Your task to perform on an android device: change notification settings in the gmail app Image 0: 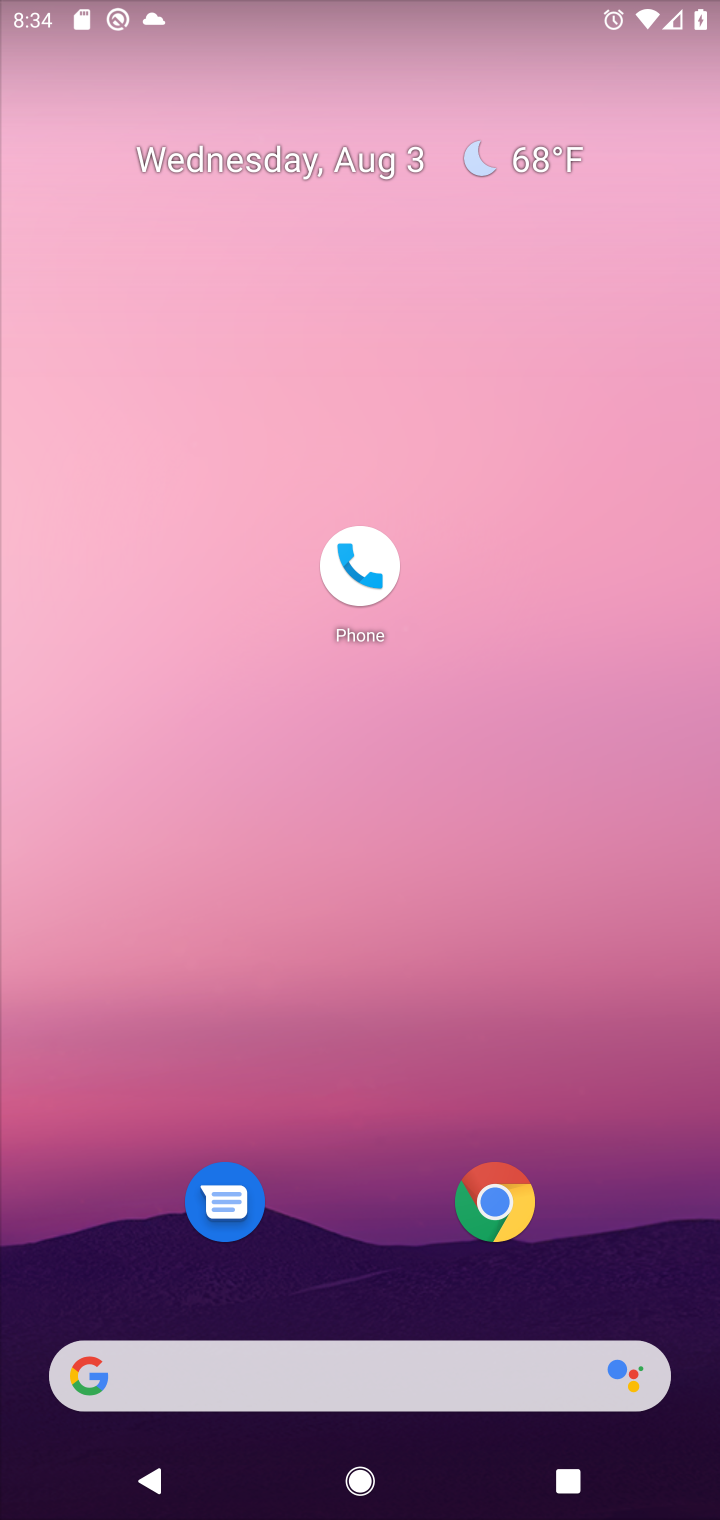
Step 0: press home button
Your task to perform on an android device: change notification settings in the gmail app Image 1: 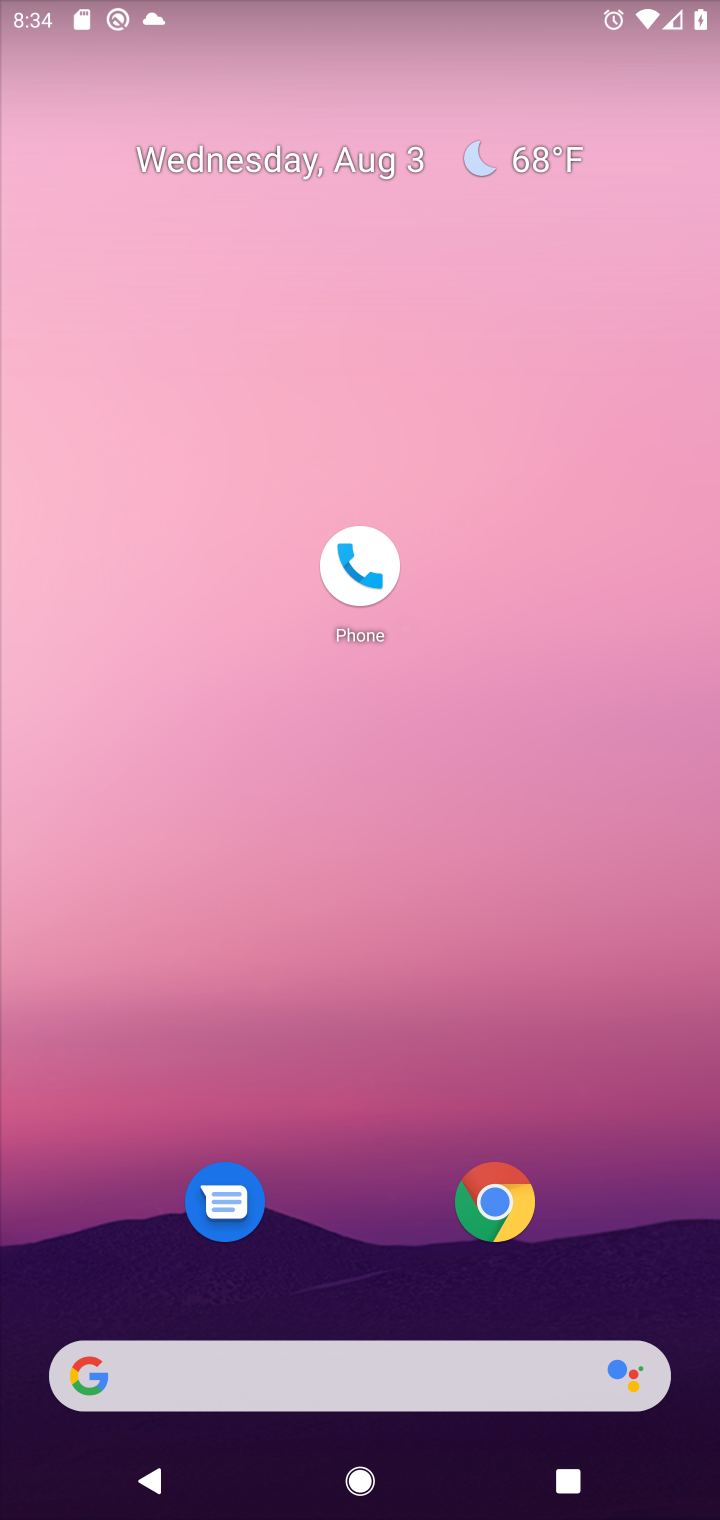
Step 1: drag from (338, 1385) to (409, 406)
Your task to perform on an android device: change notification settings in the gmail app Image 2: 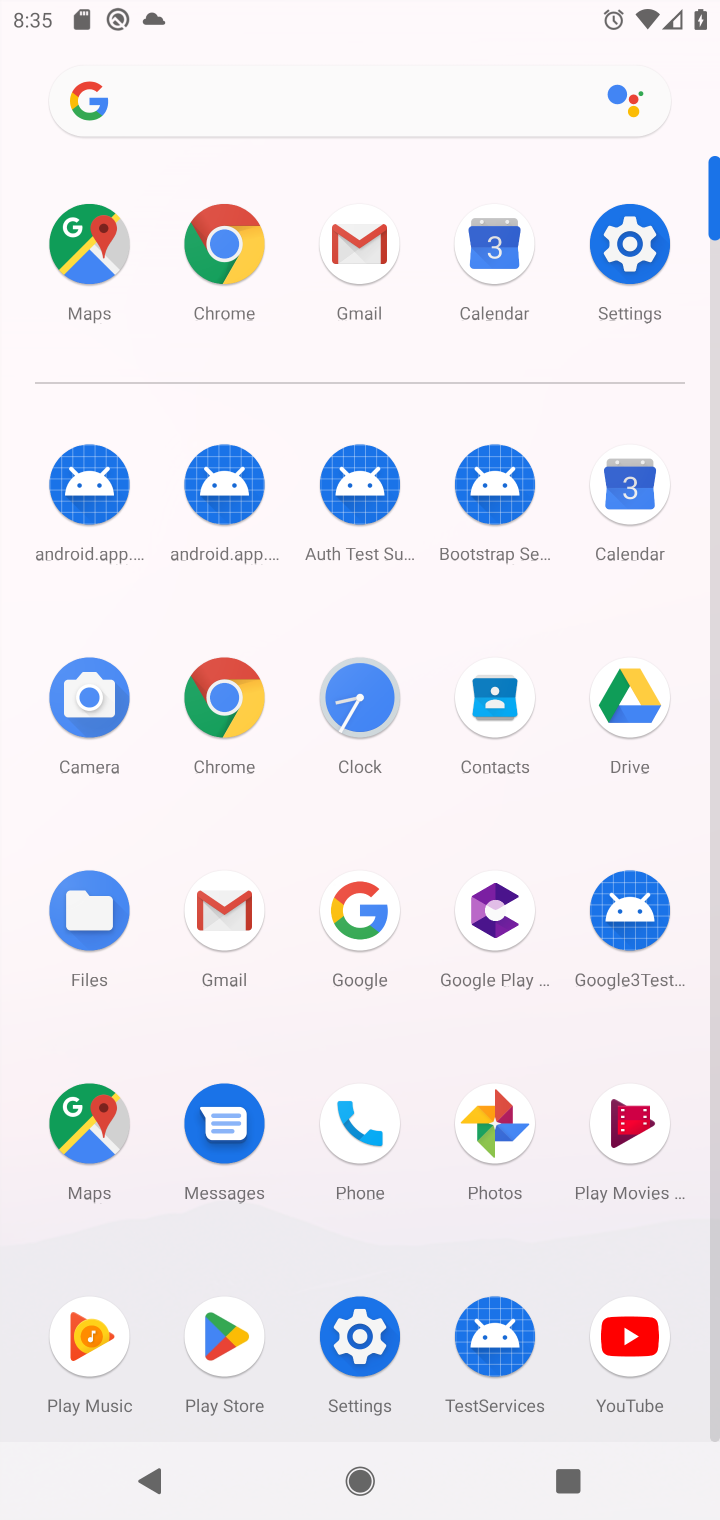
Step 2: click (353, 246)
Your task to perform on an android device: change notification settings in the gmail app Image 3: 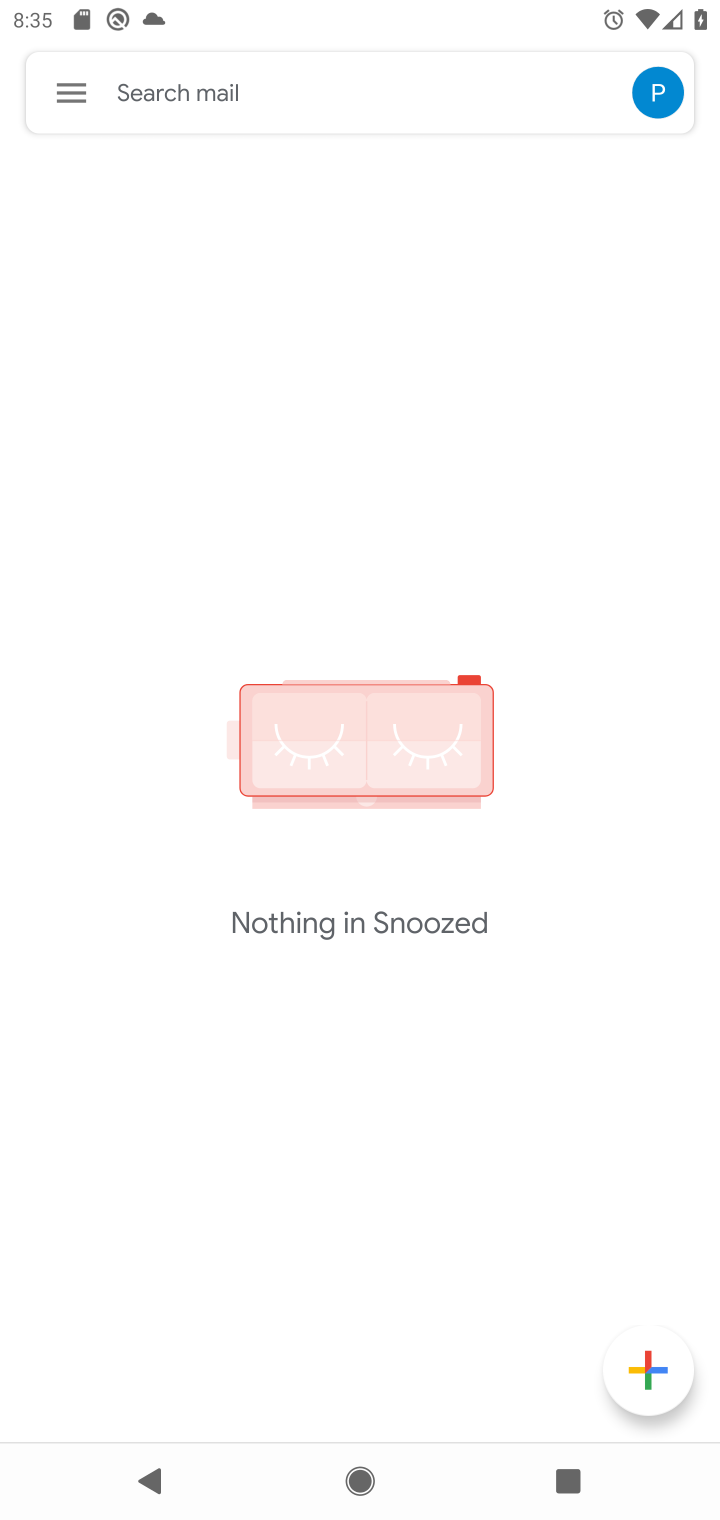
Step 3: click (67, 97)
Your task to perform on an android device: change notification settings in the gmail app Image 4: 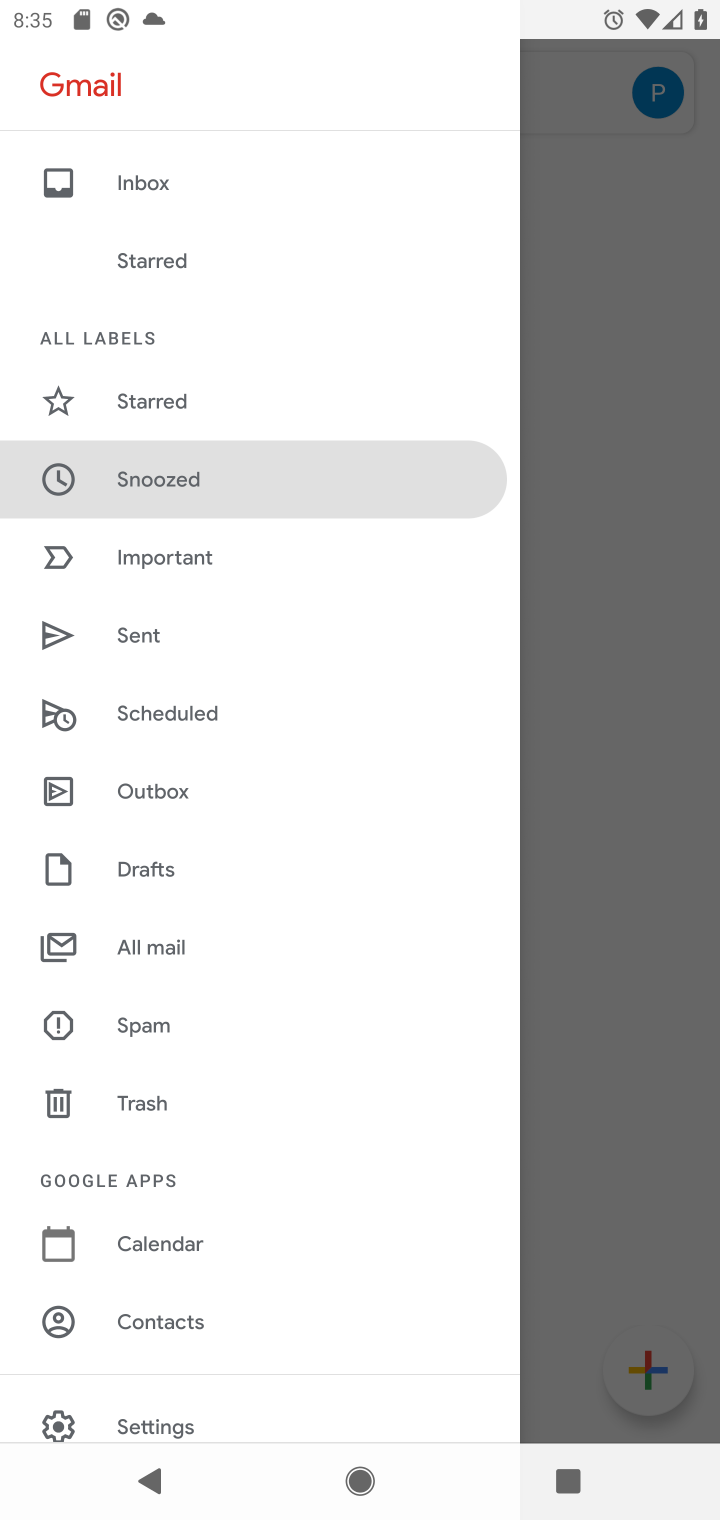
Step 4: click (161, 1418)
Your task to perform on an android device: change notification settings in the gmail app Image 5: 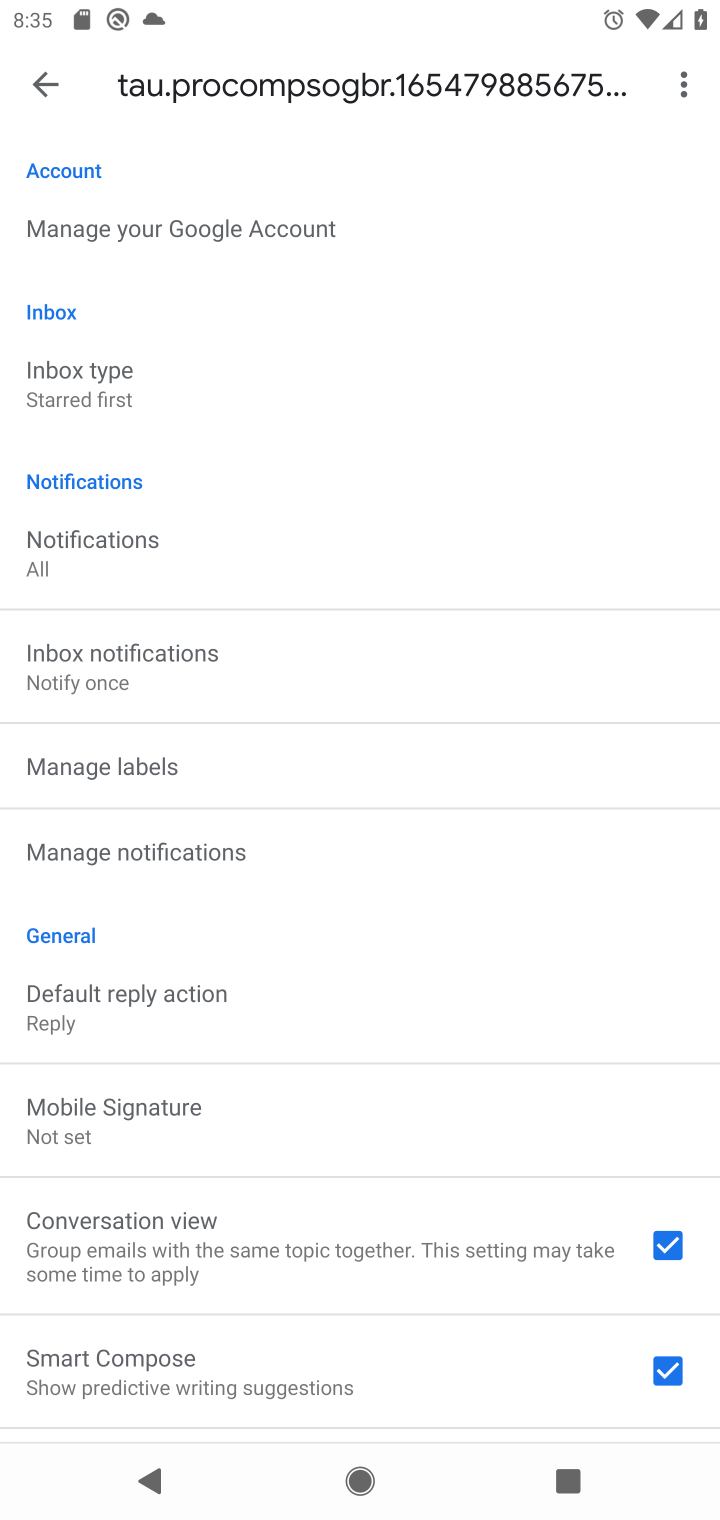
Step 5: click (127, 860)
Your task to perform on an android device: change notification settings in the gmail app Image 6: 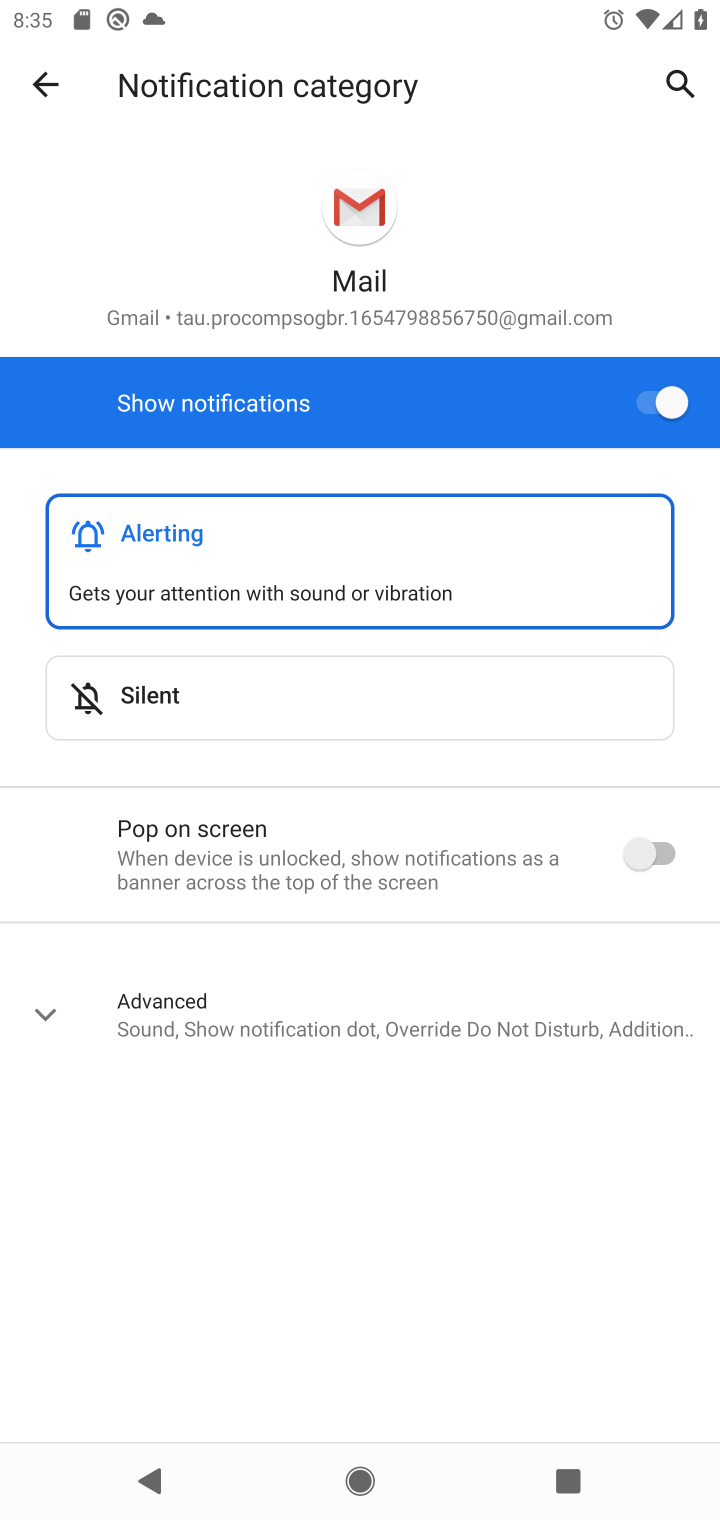
Step 6: click (642, 403)
Your task to perform on an android device: change notification settings in the gmail app Image 7: 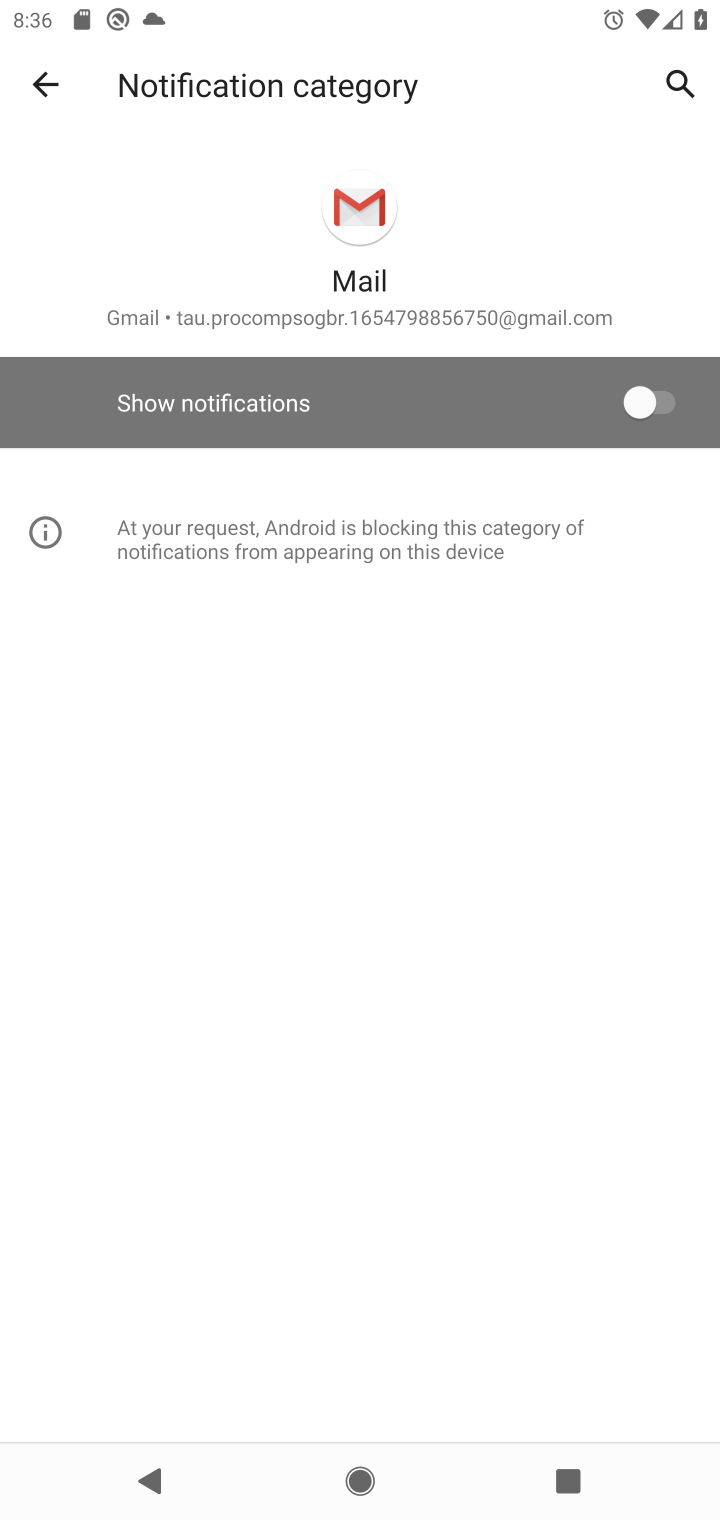
Step 7: task complete